Your task to perform on an android device: open device folders in google photos Image 0: 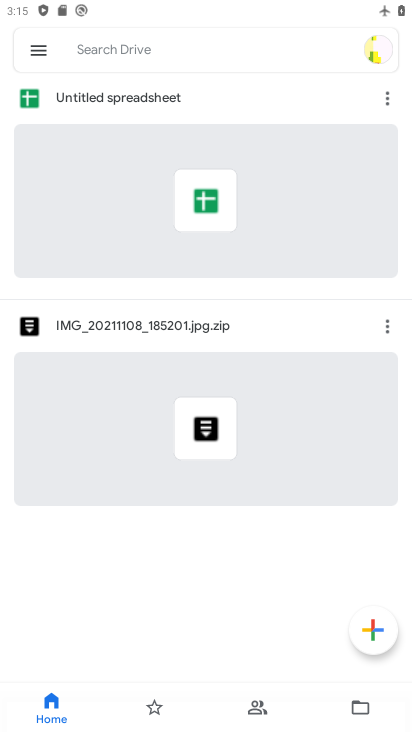
Step 0: press back button
Your task to perform on an android device: open device folders in google photos Image 1: 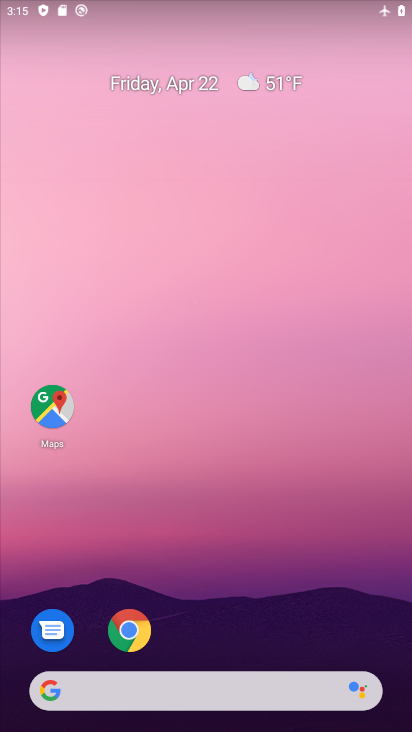
Step 1: drag from (274, 637) to (170, 27)
Your task to perform on an android device: open device folders in google photos Image 2: 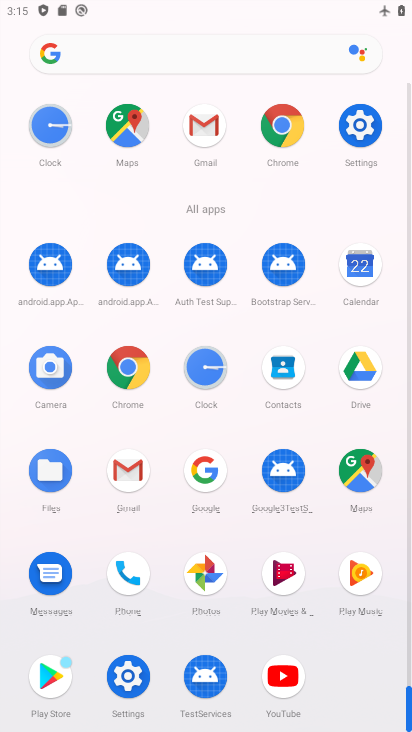
Step 2: click (205, 576)
Your task to perform on an android device: open device folders in google photos Image 3: 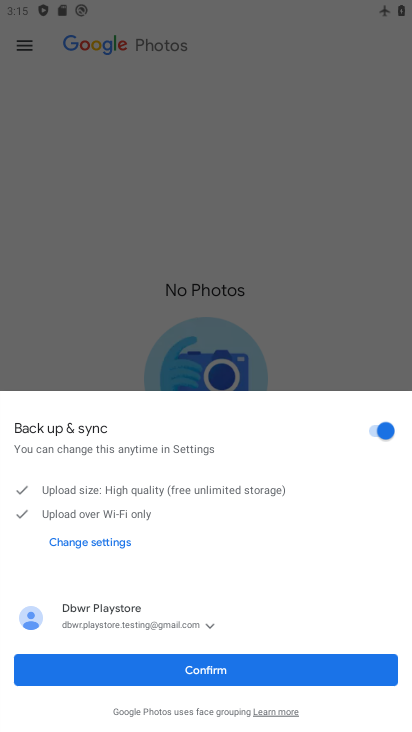
Step 3: click (209, 660)
Your task to perform on an android device: open device folders in google photos Image 4: 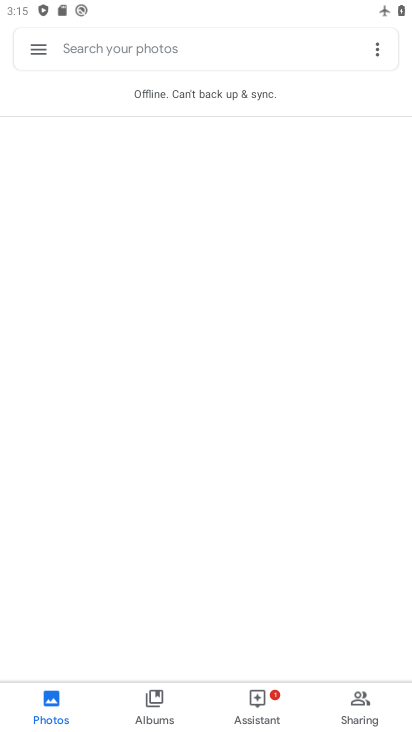
Step 4: click (46, 49)
Your task to perform on an android device: open device folders in google photos Image 5: 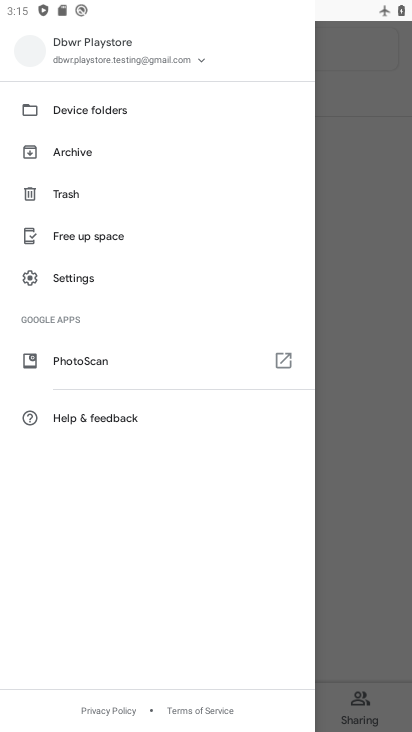
Step 5: click (109, 107)
Your task to perform on an android device: open device folders in google photos Image 6: 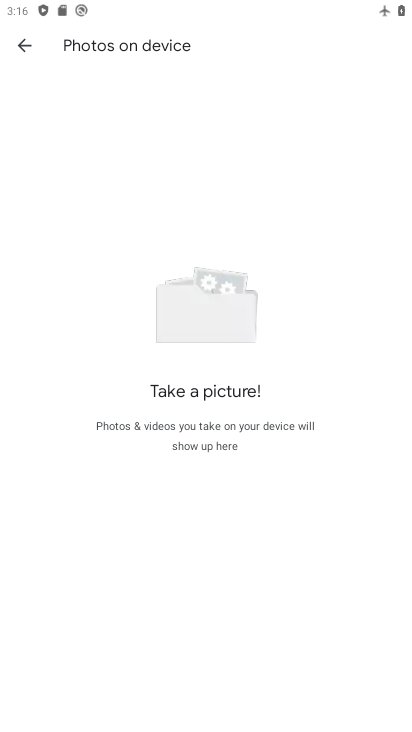
Step 6: task complete